Your task to perform on an android device: Go to location settings Image 0: 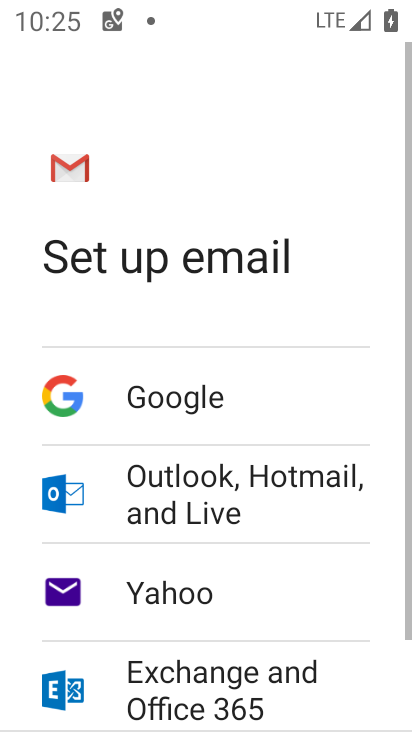
Step 0: press home button
Your task to perform on an android device: Go to location settings Image 1: 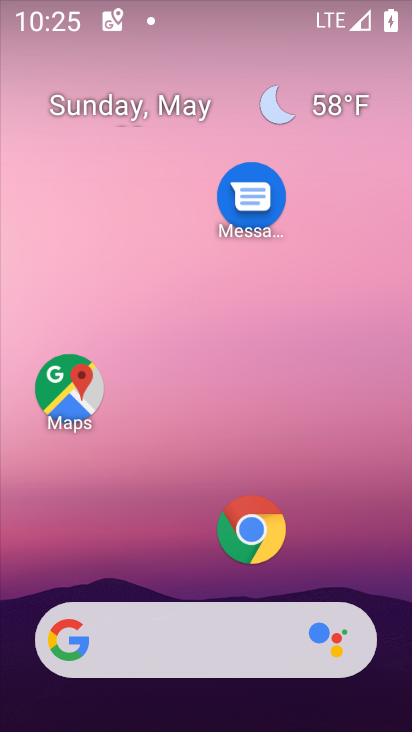
Step 1: drag from (166, 581) to (215, 161)
Your task to perform on an android device: Go to location settings Image 2: 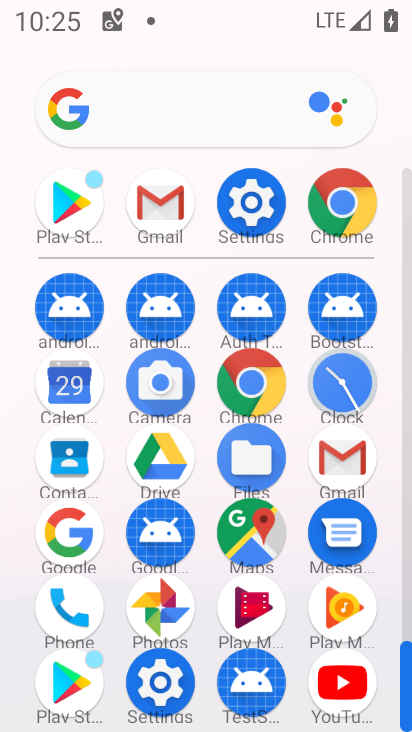
Step 2: click (262, 217)
Your task to perform on an android device: Go to location settings Image 3: 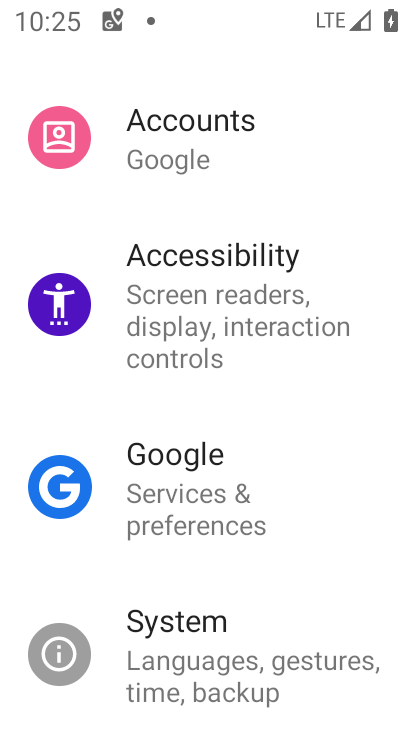
Step 3: drag from (222, 612) to (302, 303)
Your task to perform on an android device: Go to location settings Image 4: 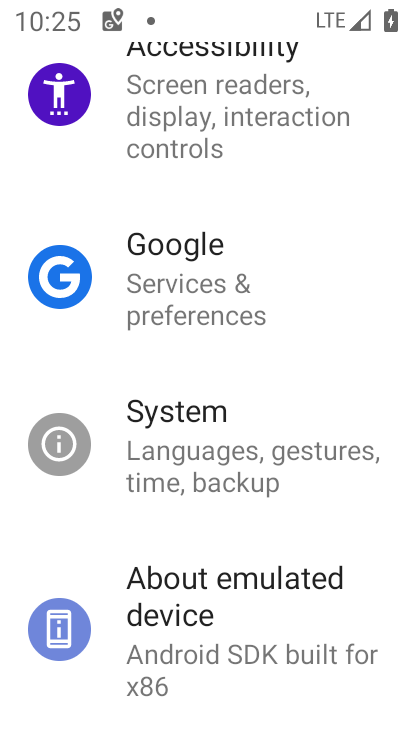
Step 4: drag from (241, 328) to (190, 626)
Your task to perform on an android device: Go to location settings Image 5: 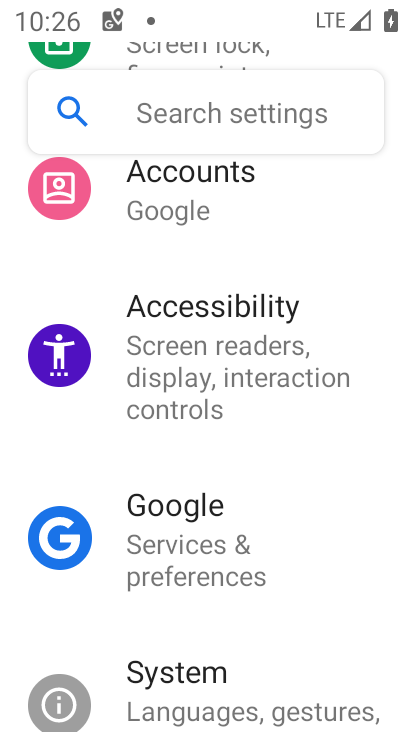
Step 5: drag from (247, 378) to (202, 679)
Your task to perform on an android device: Go to location settings Image 6: 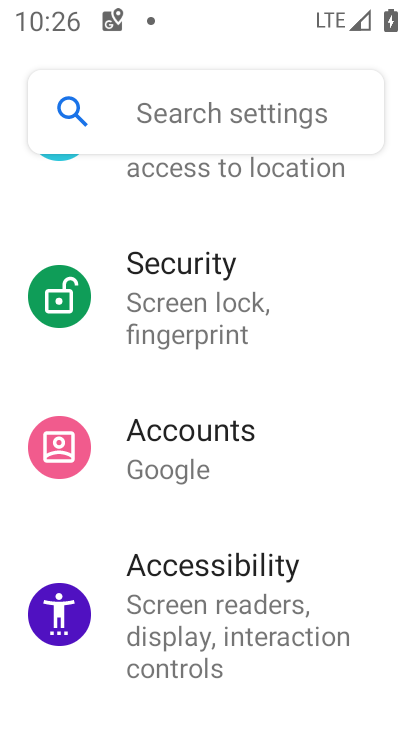
Step 6: drag from (231, 241) to (219, 498)
Your task to perform on an android device: Go to location settings Image 7: 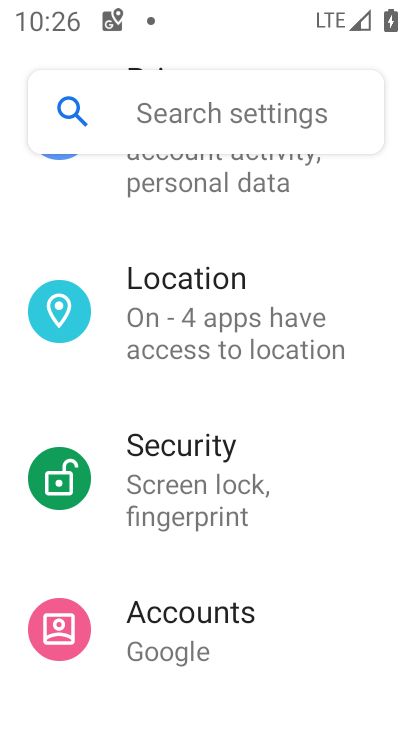
Step 7: click (215, 321)
Your task to perform on an android device: Go to location settings Image 8: 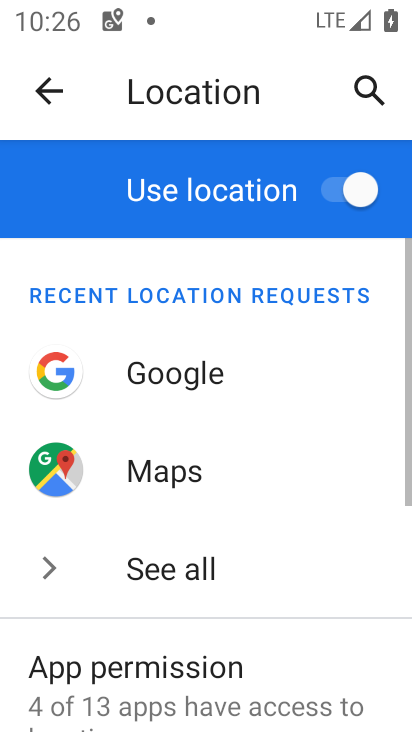
Step 8: task complete